Your task to perform on an android device: change text size in settings app Image 0: 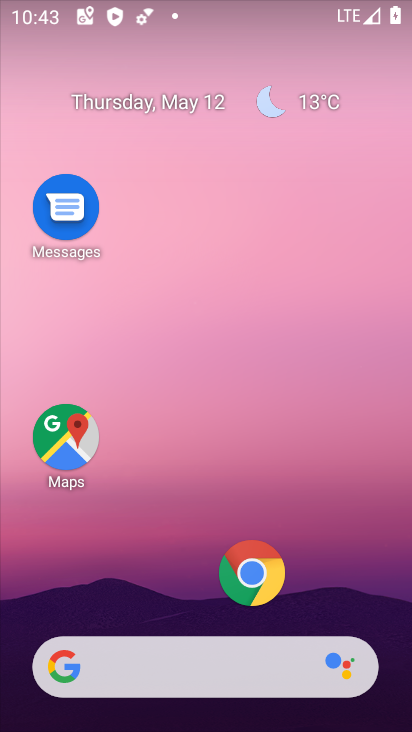
Step 0: drag from (209, 611) to (117, 18)
Your task to perform on an android device: change text size in settings app Image 1: 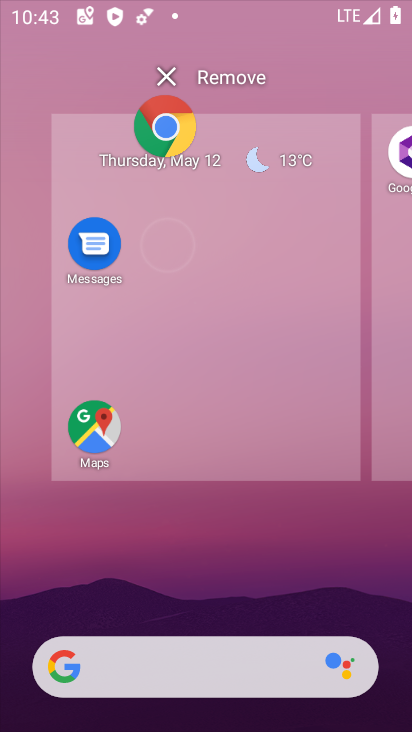
Step 1: drag from (194, 606) to (116, 9)
Your task to perform on an android device: change text size in settings app Image 2: 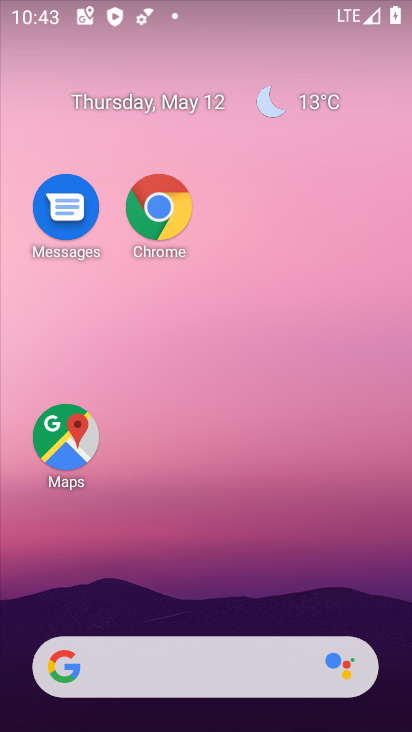
Step 2: drag from (252, 603) to (203, 21)
Your task to perform on an android device: change text size in settings app Image 3: 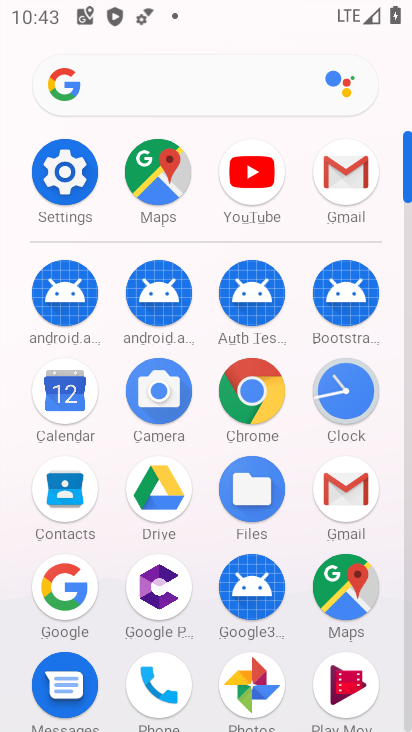
Step 3: click (70, 171)
Your task to perform on an android device: change text size in settings app Image 4: 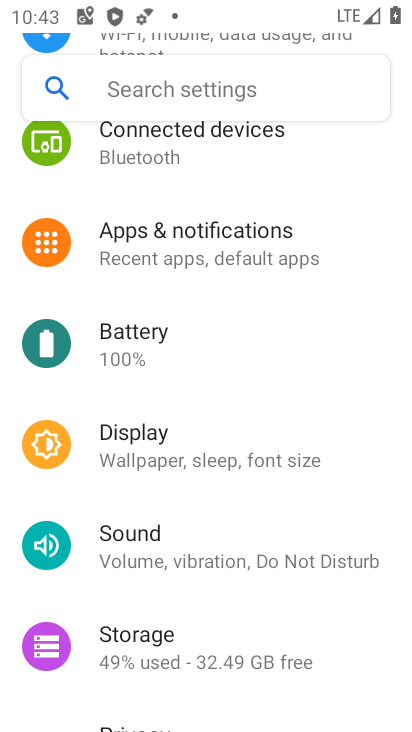
Step 4: click (135, 465)
Your task to perform on an android device: change text size in settings app Image 5: 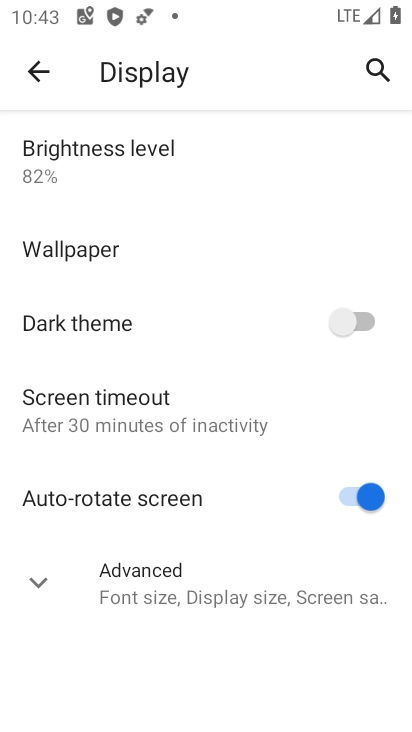
Step 5: click (154, 601)
Your task to perform on an android device: change text size in settings app Image 6: 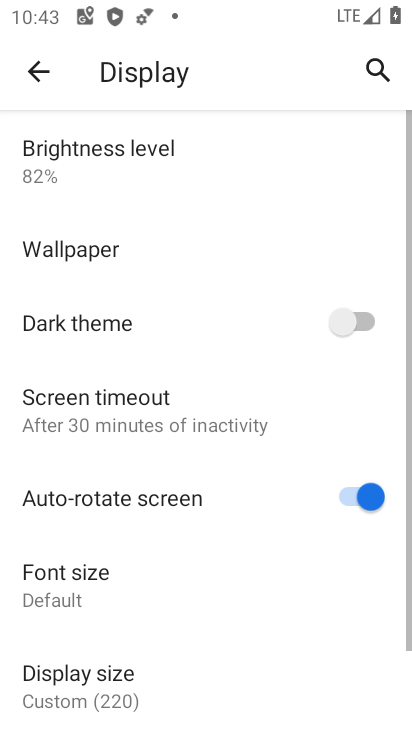
Step 6: click (154, 595)
Your task to perform on an android device: change text size in settings app Image 7: 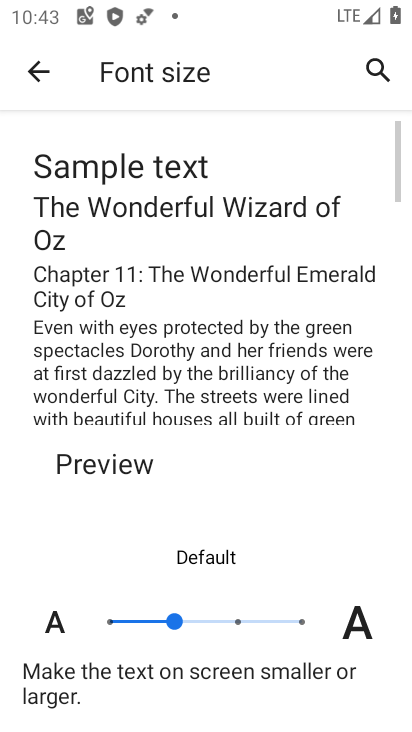
Step 7: click (236, 615)
Your task to perform on an android device: change text size in settings app Image 8: 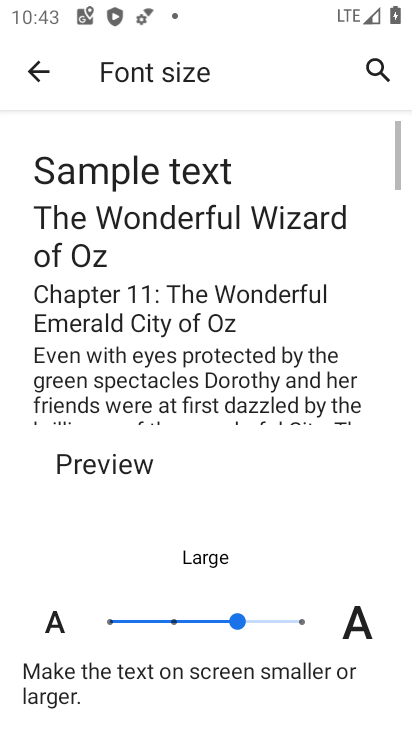
Step 8: task complete